Your task to perform on an android device: change the clock display to analog Image 0: 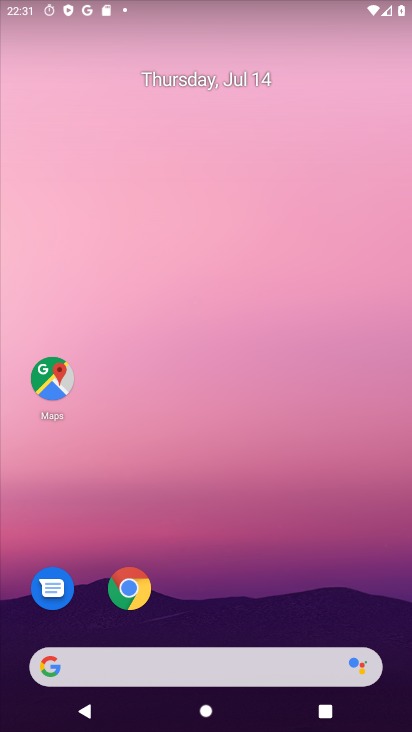
Step 0: drag from (234, 630) to (224, 299)
Your task to perform on an android device: change the clock display to analog Image 1: 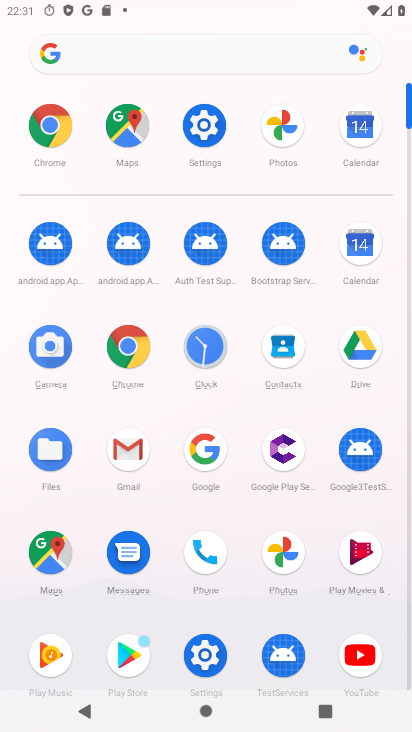
Step 1: click (206, 348)
Your task to perform on an android device: change the clock display to analog Image 2: 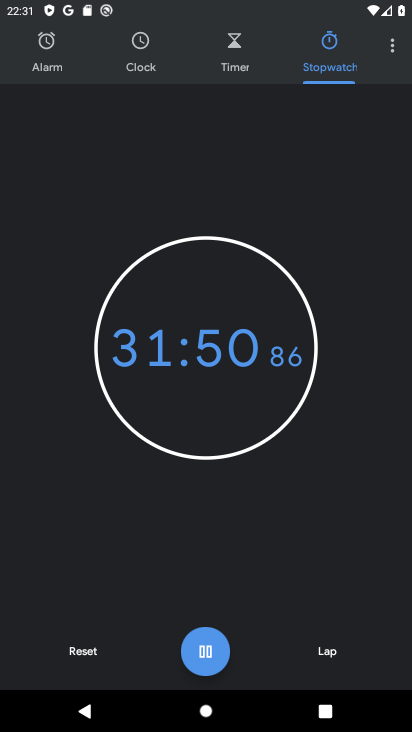
Step 2: click (391, 43)
Your task to perform on an android device: change the clock display to analog Image 3: 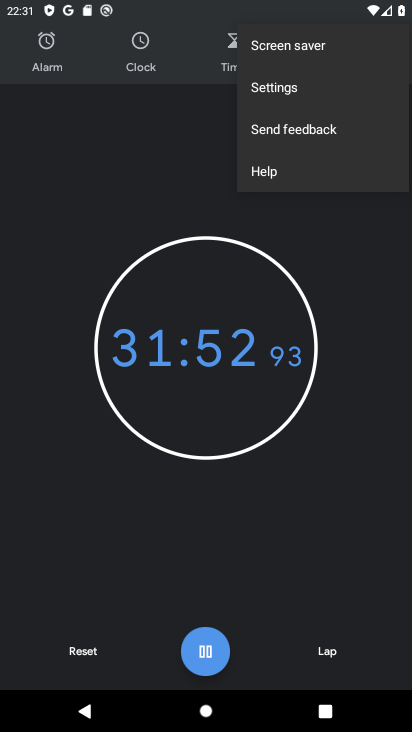
Step 3: click (302, 90)
Your task to perform on an android device: change the clock display to analog Image 4: 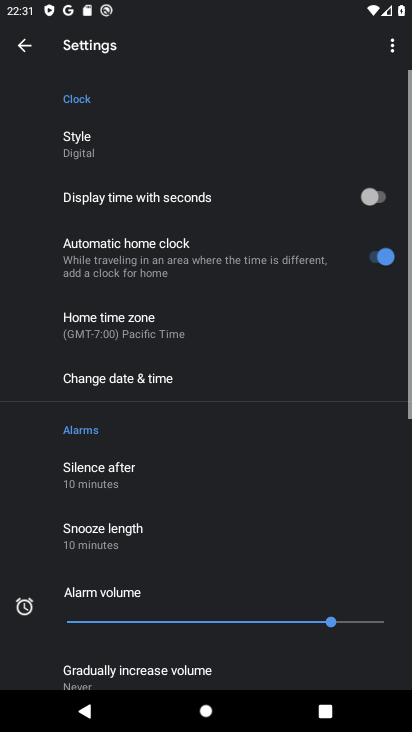
Step 4: click (123, 135)
Your task to perform on an android device: change the clock display to analog Image 5: 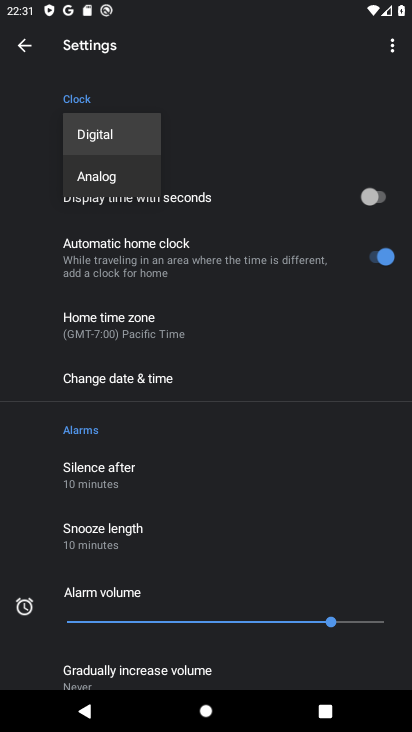
Step 5: click (99, 171)
Your task to perform on an android device: change the clock display to analog Image 6: 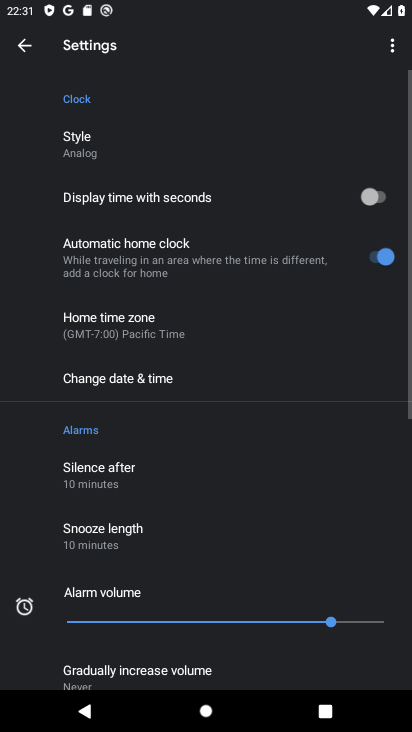
Step 6: task complete